Your task to perform on an android device: Go to internet settings Image 0: 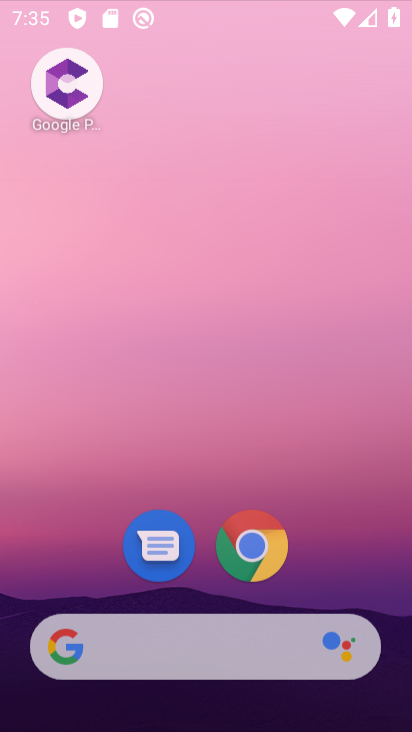
Step 0: press home button
Your task to perform on an android device: Go to internet settings Image 1: 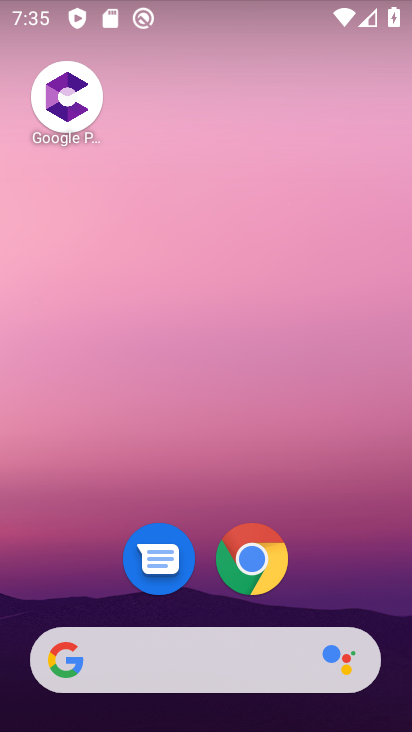
Step 1: press home button
Your task to perform on an android device: Go to internet settings Image 2: 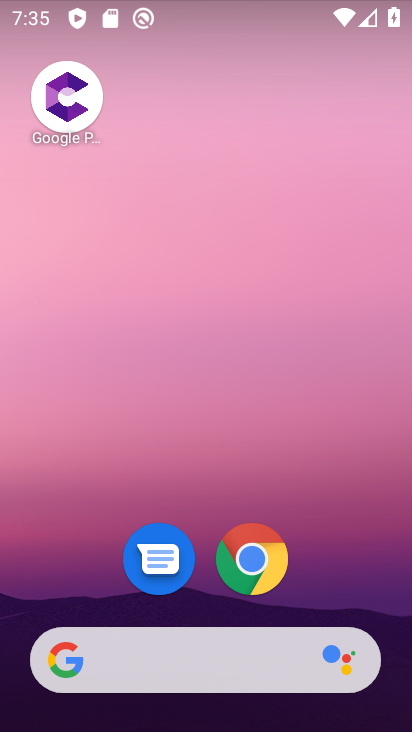
Step 2: drag from (202, 662) to (372, 37)
Your task to perform on an android device: Go to internet settings Image 3: 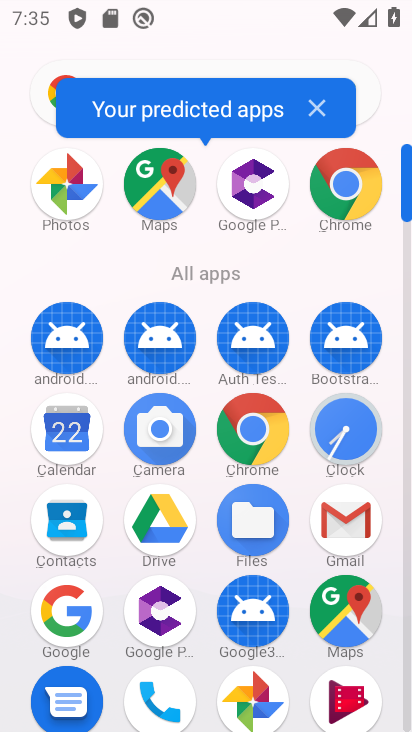
Step 3: drag from (212, 636) to (378, 146)
Your task to perform on an android device: Go to internet settings Image 4: 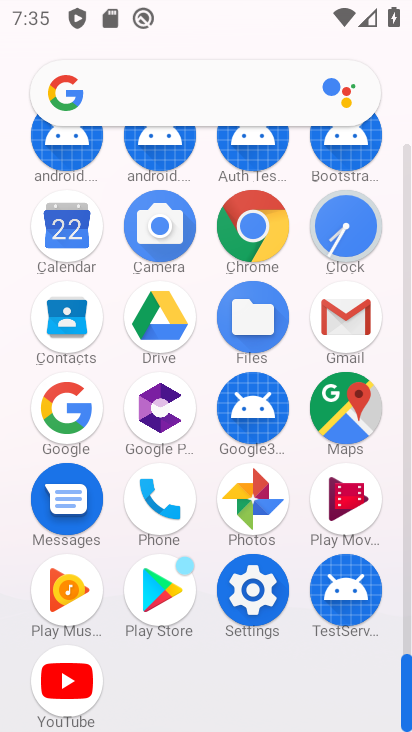
Step 4: click (255, 582)
Your task to perform on an android device: Go to internet settings Image 5: 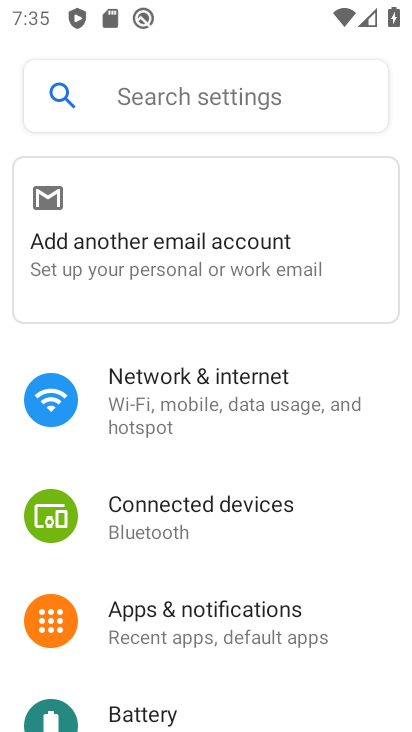
Step 5: click (250, 366)
Your task to perform on an android device: Go to internet settings Image 6: 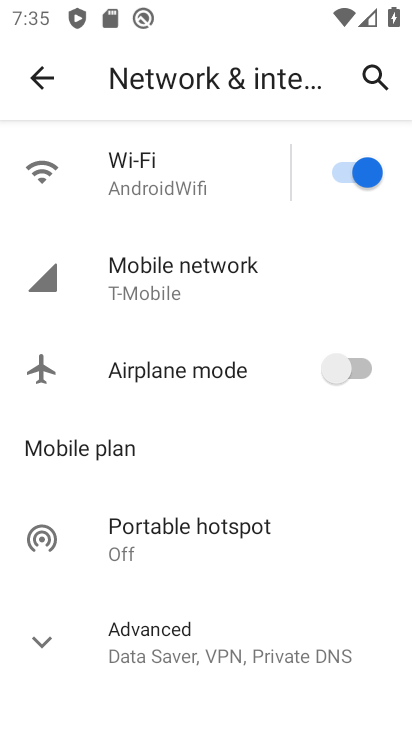
Step 6: task complete